Your task to perform on an android device: show emergency info Image 0: 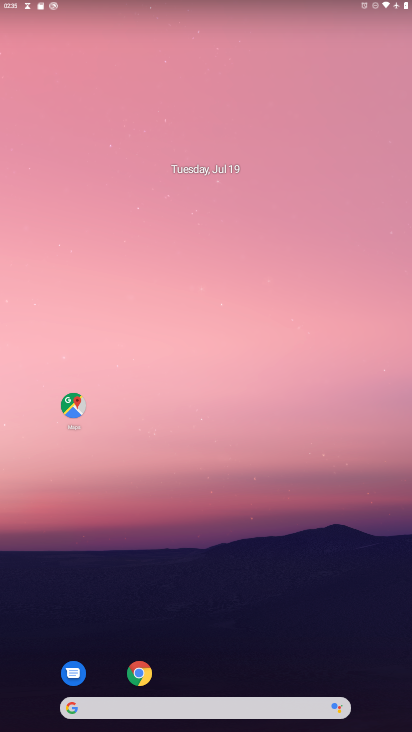
Step 0: drag from (274, 644) to (256, 158)
Your task to perform on an android device: show emergency info Image 1: 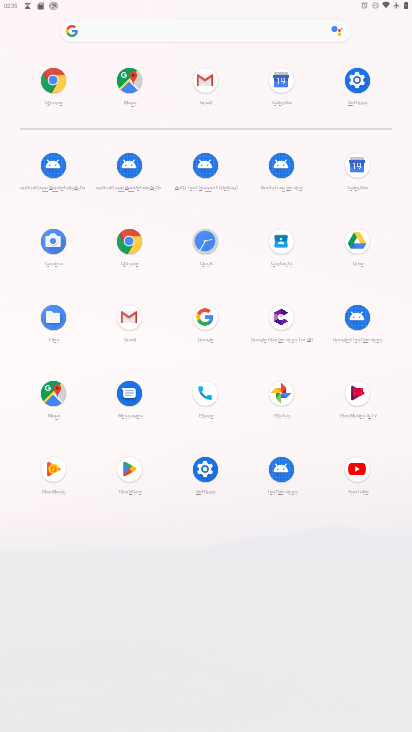
Step 1: click (366, 79)
Your task to perform on an android device: show emergency info Image 2: 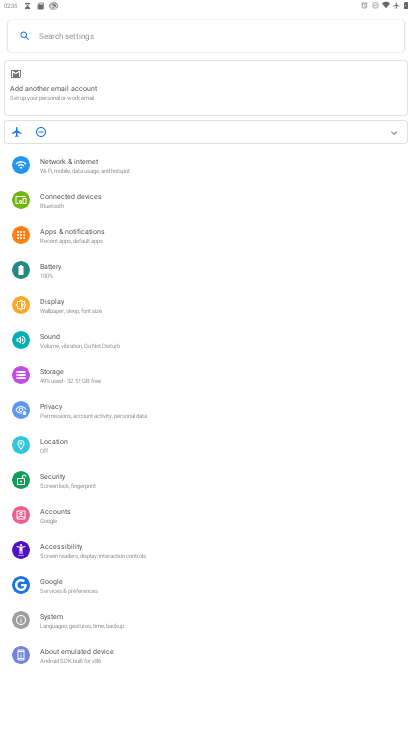
Step 2: click (64, 649)
Your task to perform on an android device: show emergency info Image 3: 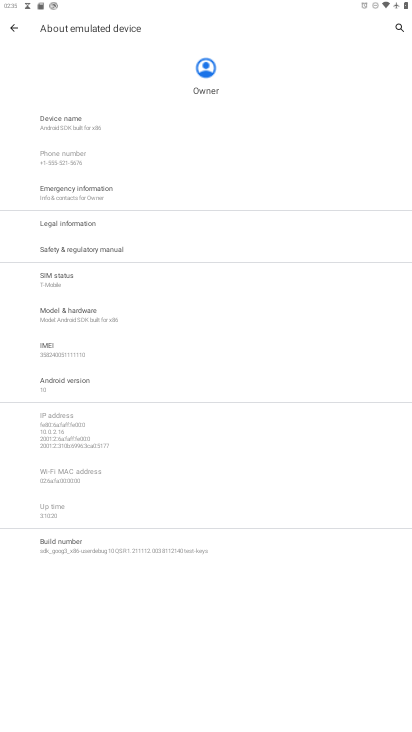
Step 3: click (73, 187)
Your task to perform on an android device: show emergency info Image 4: 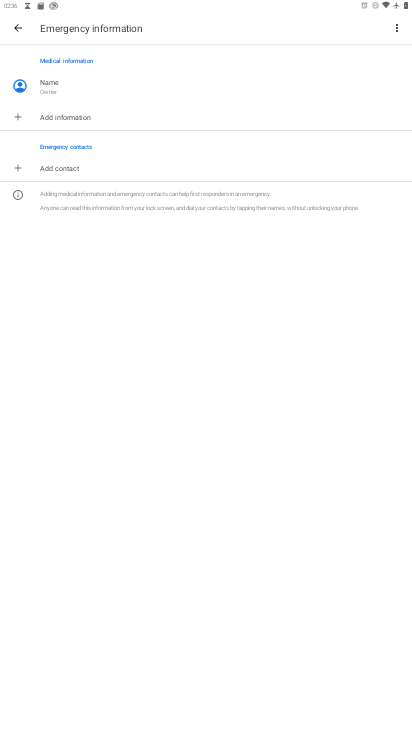
Step 4: task complete